Your task to perform on an android device: Go to Google Image 0: 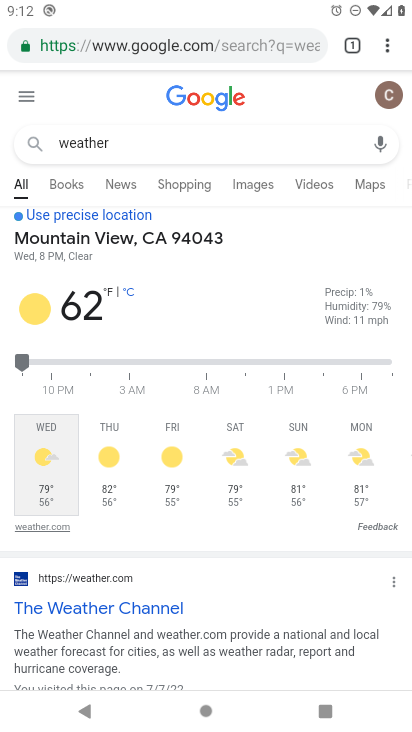
Step 0: press home button
Your task to perform on an android device: Go to Google Image 1: 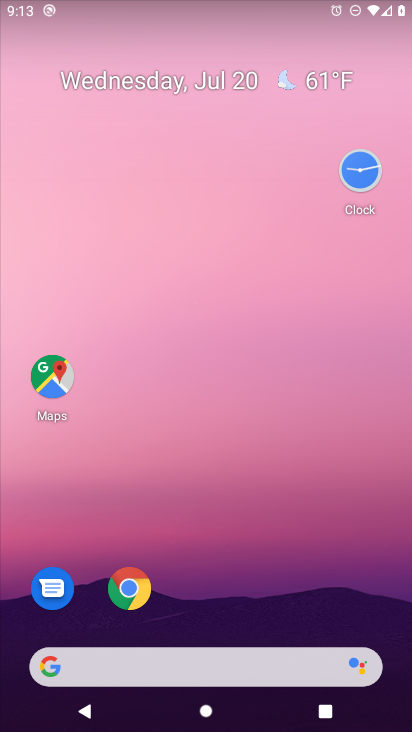
Step 1: click (124, 674)
Your task to perform on an android device: Go to Google Image 2: 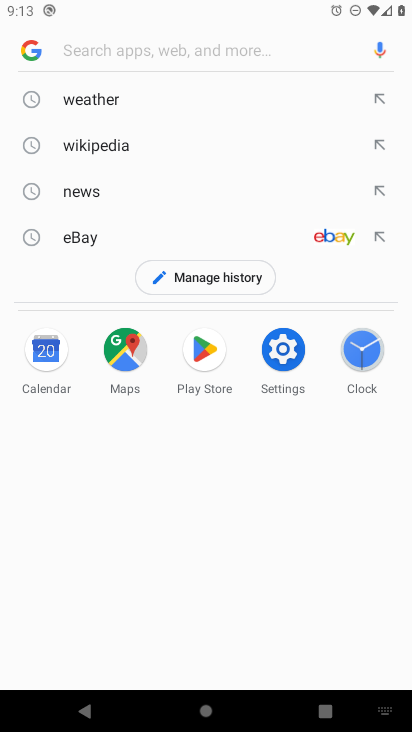
Step 2: task complete